Your task to perform on an android device: Check the news Image 0: 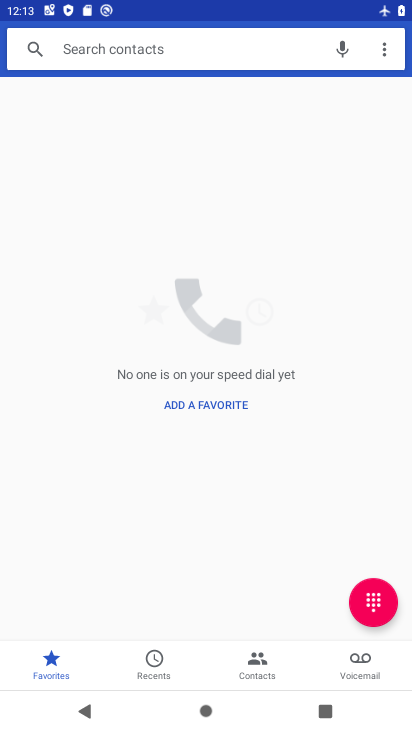
Step 0: press home button
Your task to perform on an android device: Check the news Image 1: 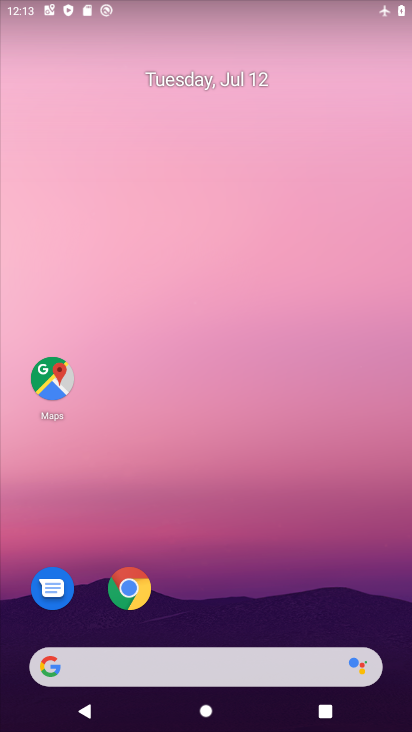
Step 1: drag from (206, 505) to (213, 125)
Your task to perform on an android device: Check the news Image 2: 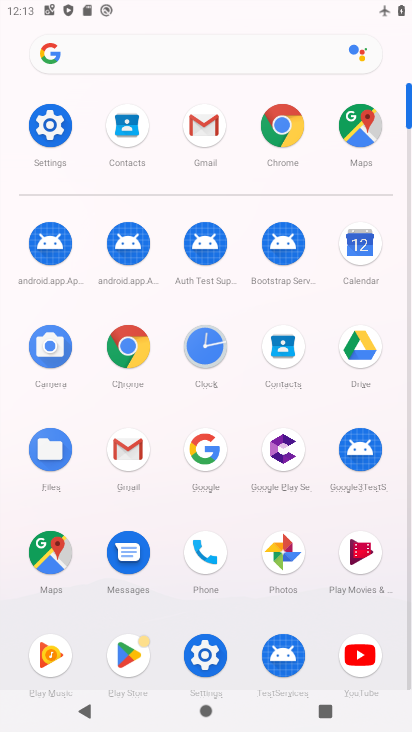
Step 2: click (278, 129)
Your task to perform on an android device: Check the news Image 3: 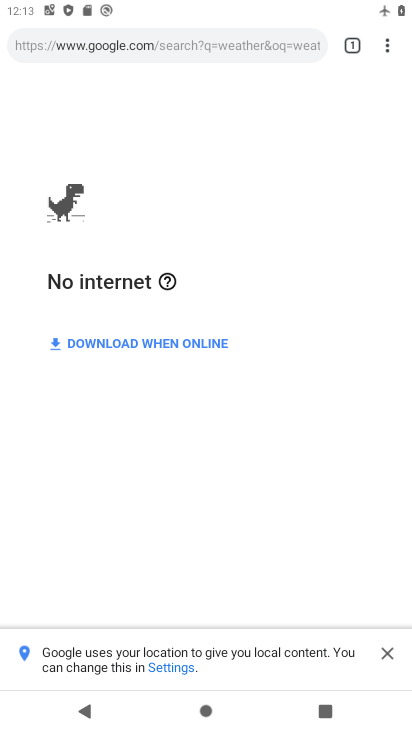
Step 3: click (203, 49)
Your task to perform on an android device: Check the news Image 4: 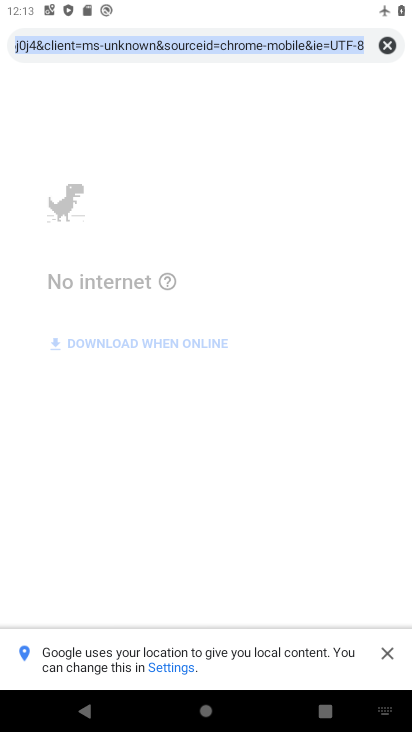
Step 4: type "news"
Your task to perform on an android device: Check the news Image 5: 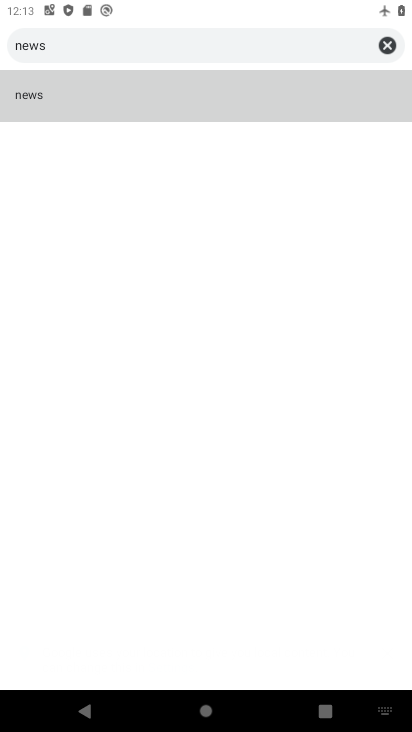
Step 5: click (47, 104)
Your task to perform on an android device: Check the news Image 6: 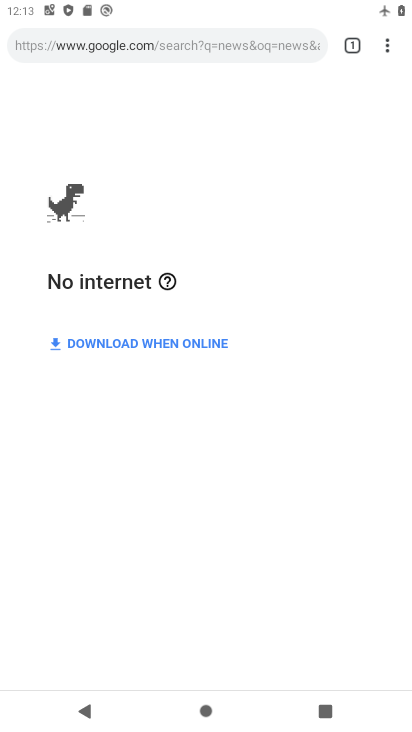
Step 6: task complete